Your task to perform on an android device: all mails in gmail Image 0: 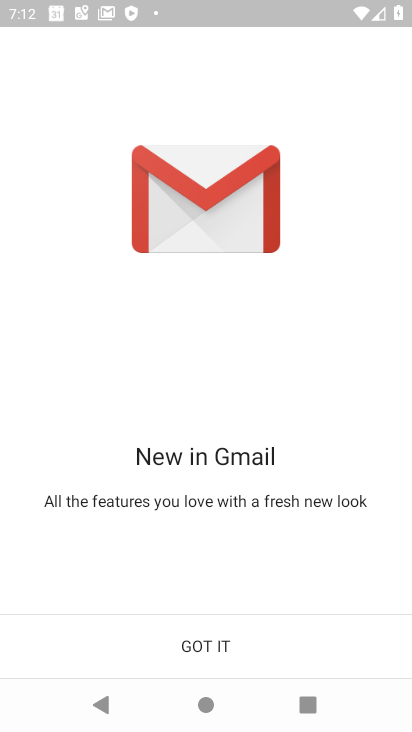
Step 0: press home button
Your task to perform on an android device: all mails in gmail Image 1: 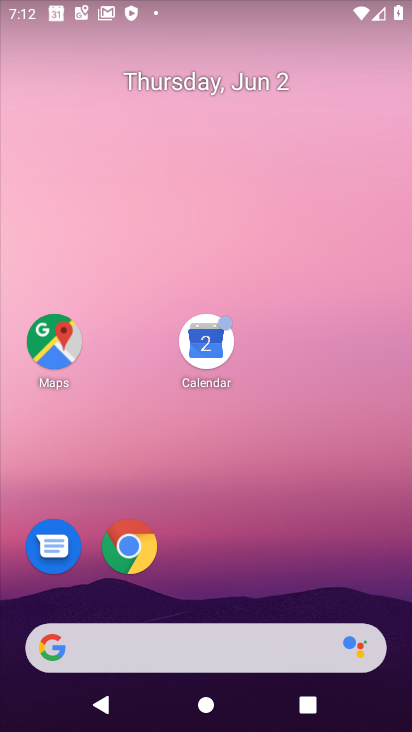
Step 1: drag from (255, 679) to (294, 165)
Your task to perform on an android device: all mails in gmail Image 2: 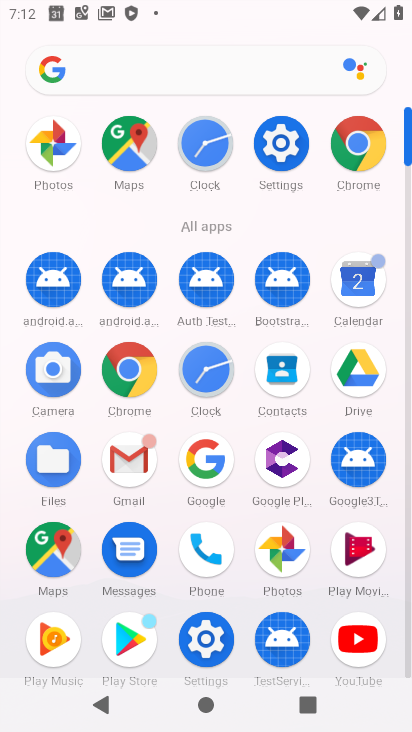
Step 2: click (124, 462)
Your task to perform on an android device: all mails in gmail Image 3: 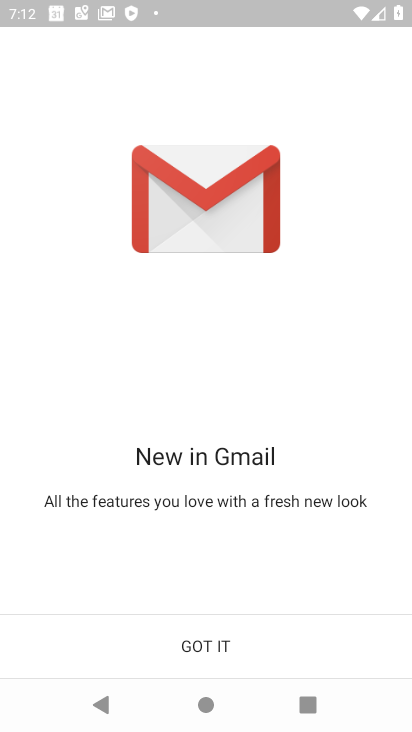
Step 3: click (234, 658)
Your task to perform on an android device: all mails in gmail Image 4: 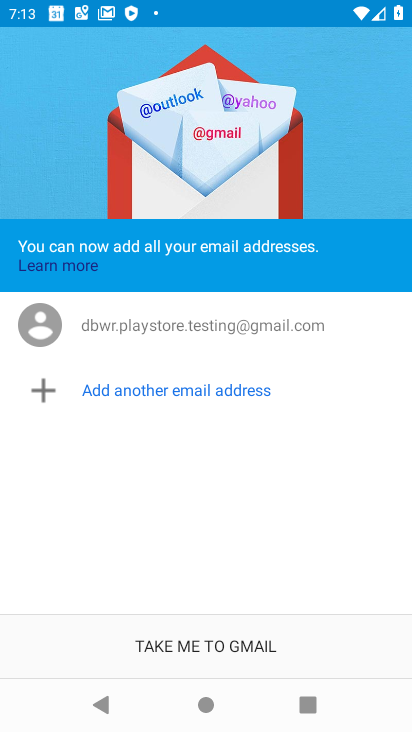
Step 4: click (234, 658)
Your task to perform on an android device: all mails in gmail Image 5: 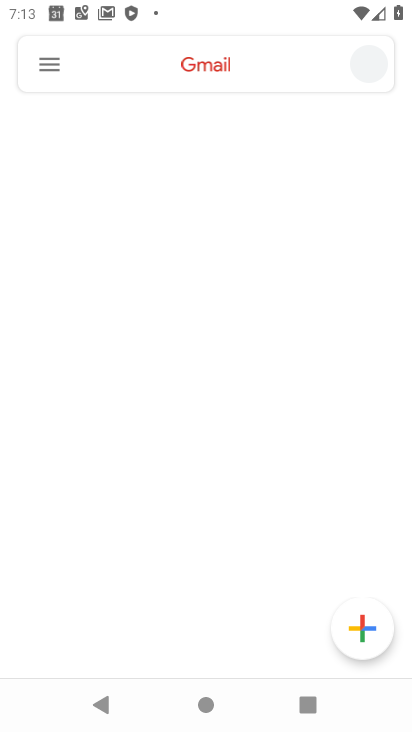
Step 5: click (234, 658)
Your task to perform on an android device: all mails in gmail Image 6: 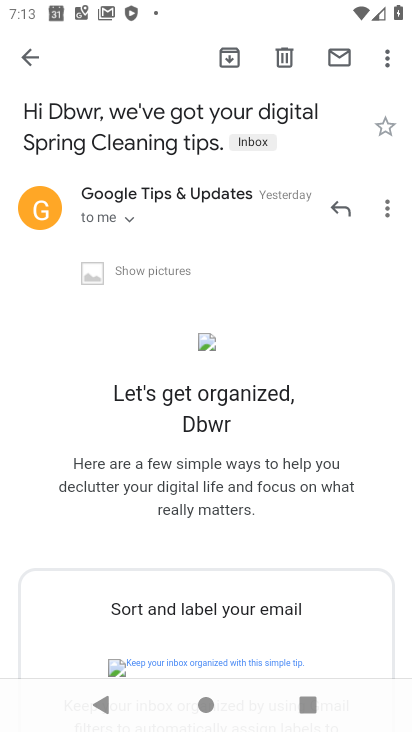
Step 6: click (26, 59)
Your task to perform on an android device: all mails in gmail Image 7: 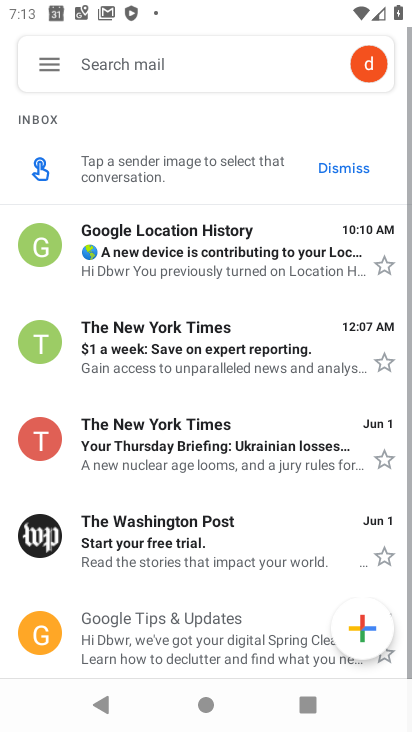
Step 7: click (50, 69)
Your task to perform on an android device: all mails in gmail Image 8: 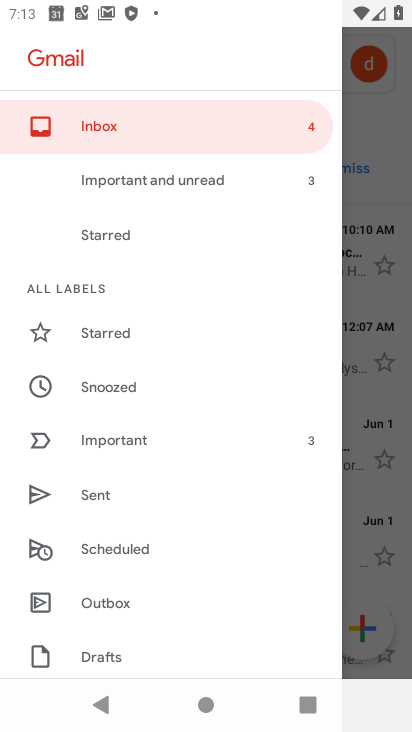
Step 8: drag from (129, 659) to (185, 368)
Your task to perform on an android device: all mails in gmail Image 9: 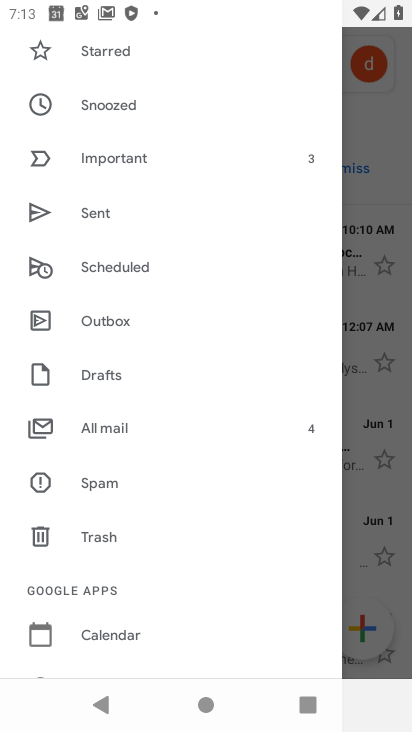
Step 9: click (119, 431)
Your task to perform on an android device: all mails in gmail Image 10: 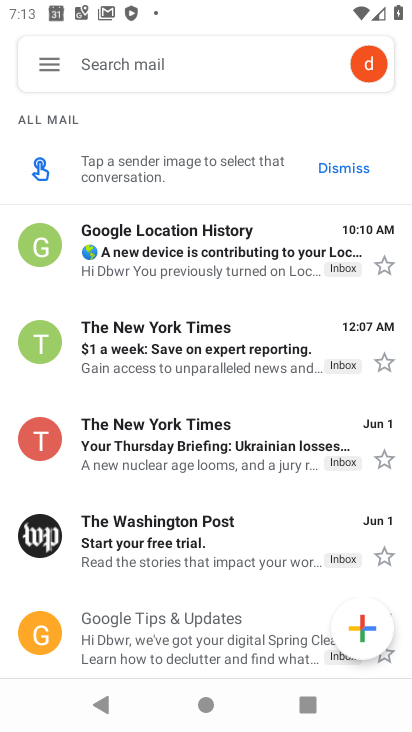
Step 10: click (336, 161)
Your task to perform on an android device: all mails in gmail Image 11: 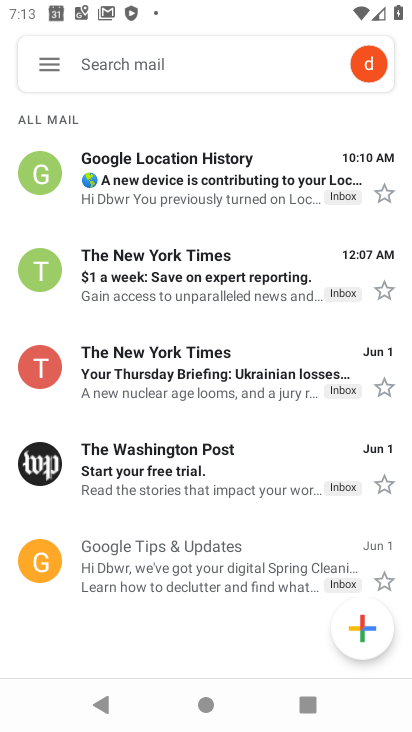
Step 11: task complete